Your task to perform on an android device: open wifi settings Image 0: 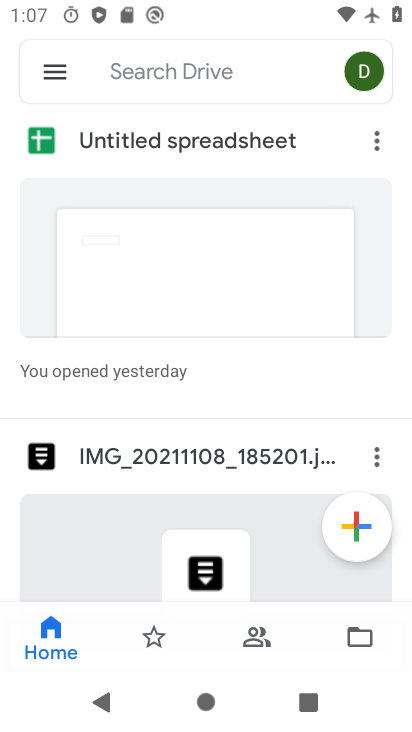
Step 0: press home button
Your task to perform on an android device: open wifi settings Image 1: 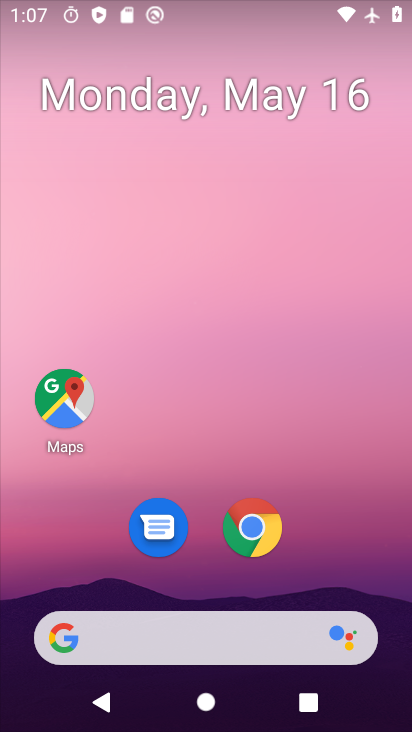
Step 1: drag from (223, 504) to (339, 180)
Your task to perform on an android device: open wifi settings Image 2: 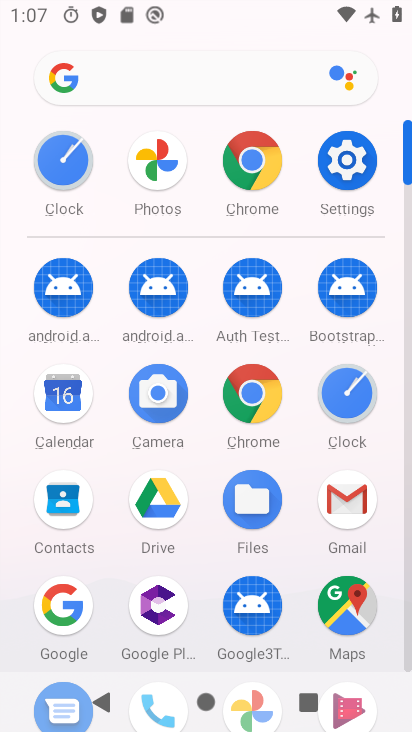
Step 2: click (340, 159)
Your task to perform on an android device: open wifi settings Image 3: 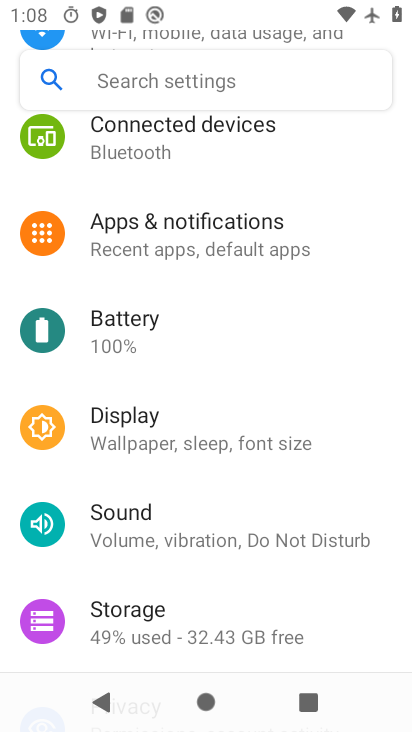
Step 3: drag from (289, 200) to (161, 557)
Your task to perform on an android device: open wifi settings Image 4: 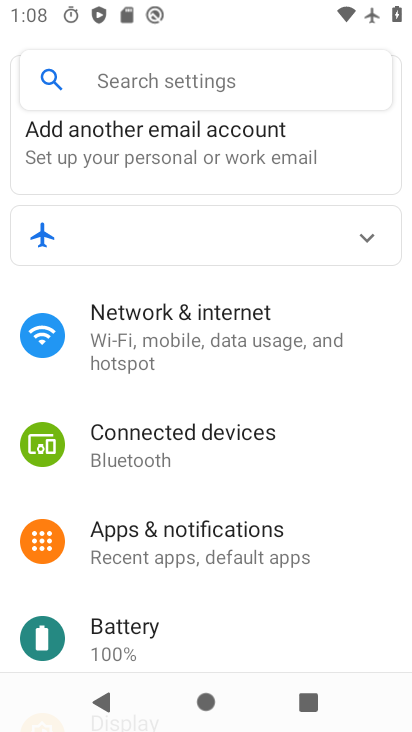
Step 4: click (194, 318)
Your task to perform on an android device: open wifi settings Image 5: 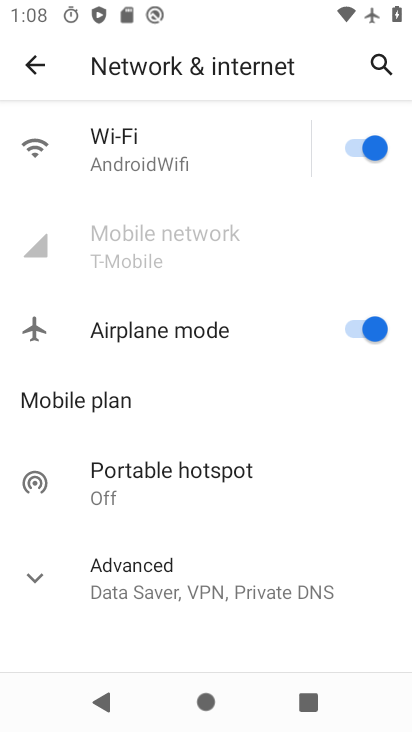
Step 5: click (162, 155)
Your task to perform on an android device: open wifi settings Image 6: 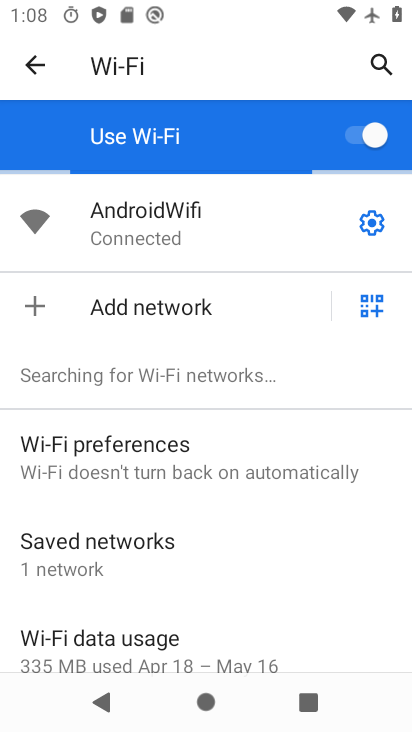
Step 6: task complete